Your task to perform on an android device: Search for "macbook pro 13 inch" on newegg.com, select the first entry, add it to the cart, then select checkout. Image 0: 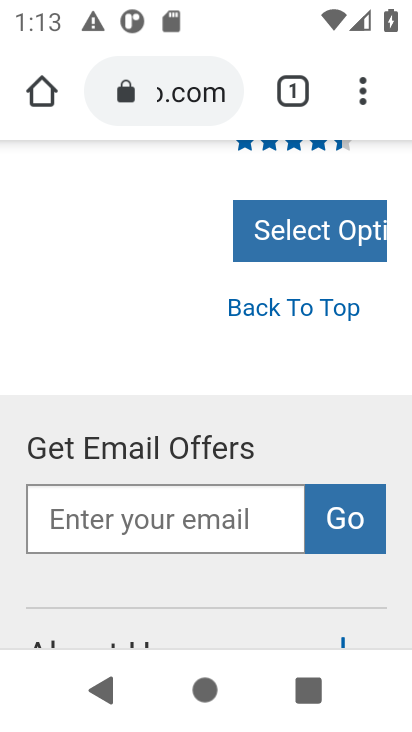
Step 0: click (164, 86)
Your task to perform on an android device: Search for "macbook pro 13 inch" on newegg.com, select the first entry, add it to the cart, then select checkout. Image 1: 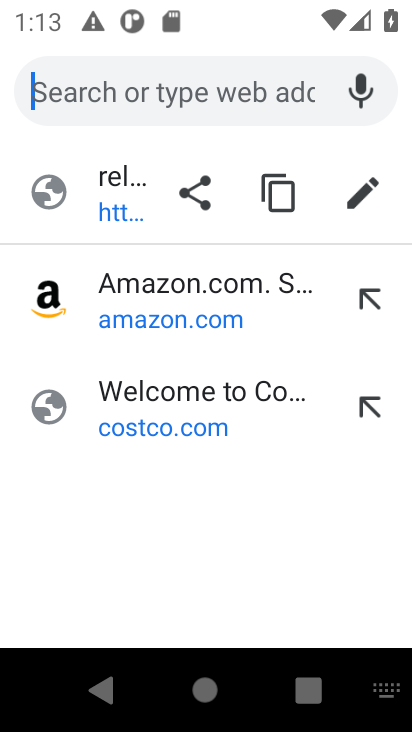
Step 1: type "newegg"
Your task to perform on an android device: Search for "macbook pro 13 inch" on newegg.com, select the first entry, add it to the cart, then select checkout. Image 2: 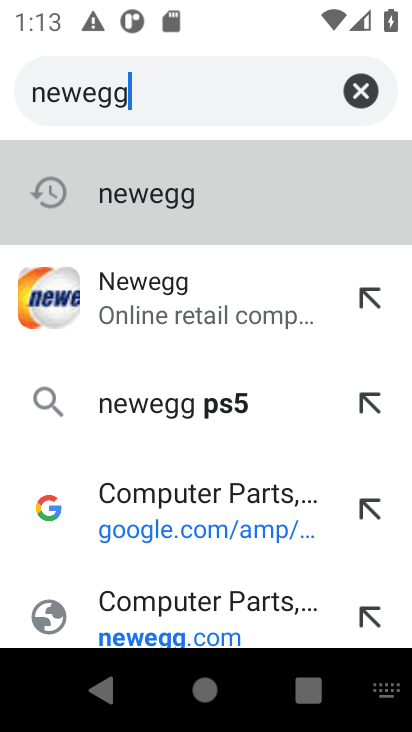
Step 2: drag from (247, 518) to (214, 267)
Your task to perform on an android device: Search for "macbook pro 13 inch" on newegg.com, select the first entry, add it to the cart, then select checkout. Image 3: 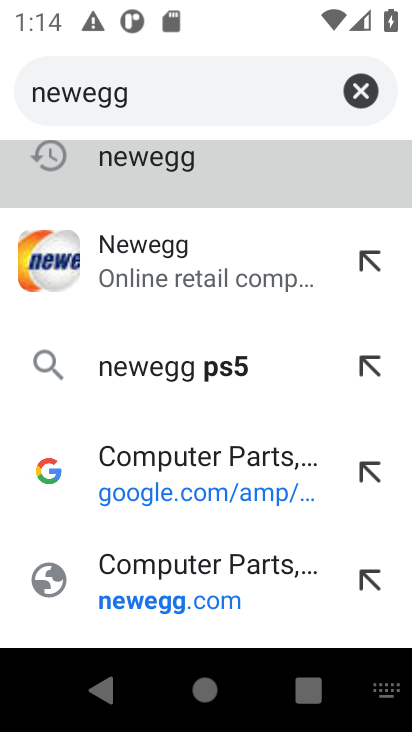
Step 3: click (201, 599)
Your task to perform on an android device: Search for "macbook pro 13 inch" on newegg.com, select the first entry, add it to the cart, then select checkout. Image 4: 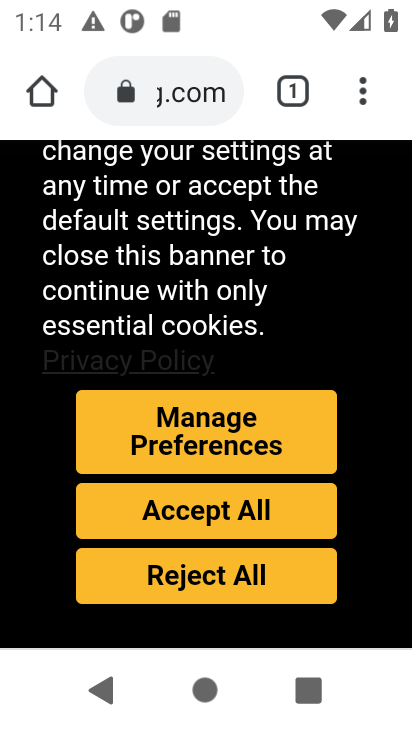
Step 4: click (226, 522)
Your task to perform on an android device: Search for "macbook pro 13 inch" on newegg.com, select the first entry, add it to the cart, then select checkout. Image 5: 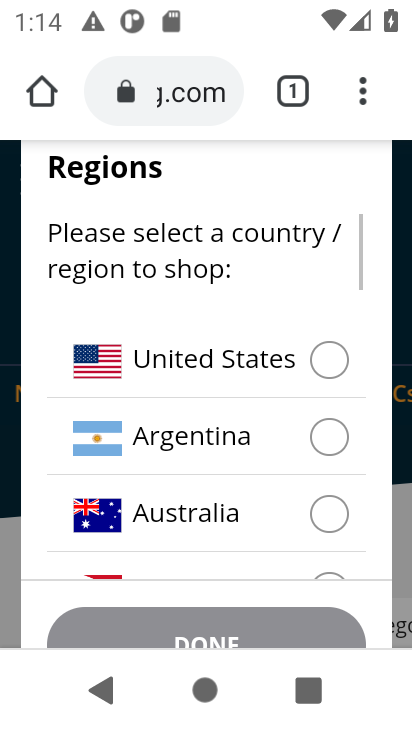
Step 5: click (326, 375)
Your task to perform on an android device: Search for "macbook pro 13 inch" on newegg.com, select the first entry, add it to the cart, then select checkout. Image 6: 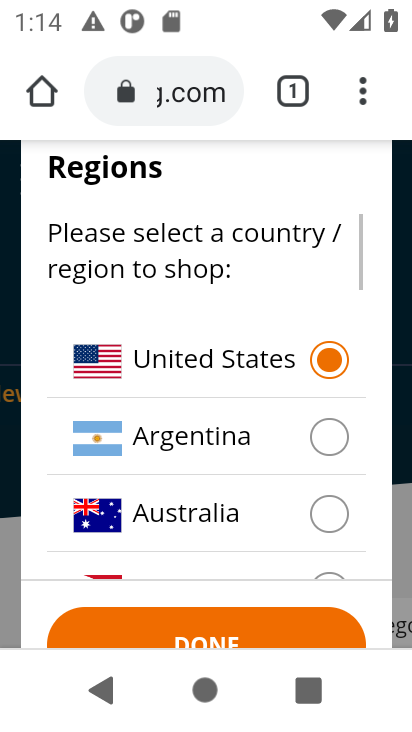
Step 6: click (273, 629)
Your task to perform on an android device: Search for "macbook pro 13 inch" on newegg.com, select the first entry, add it to the cart, then select checkout. Image 7: 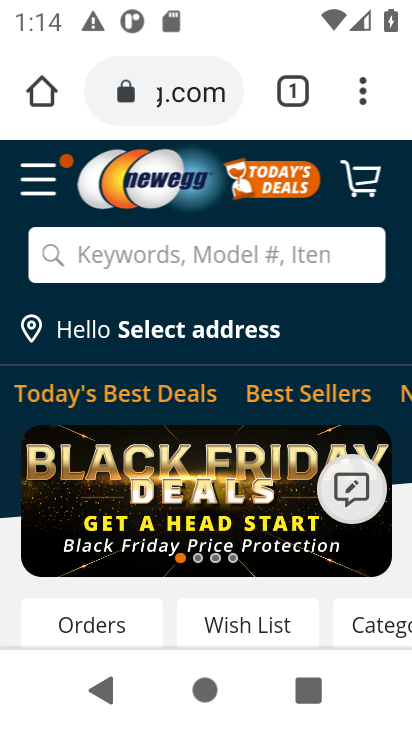
Step 7: click (240, 252)
Your task to perform on an android device: Search for "macbook pro 13 inch" on newegg.com, select the first entry, add it to the cart, then select checkout. Image 8: 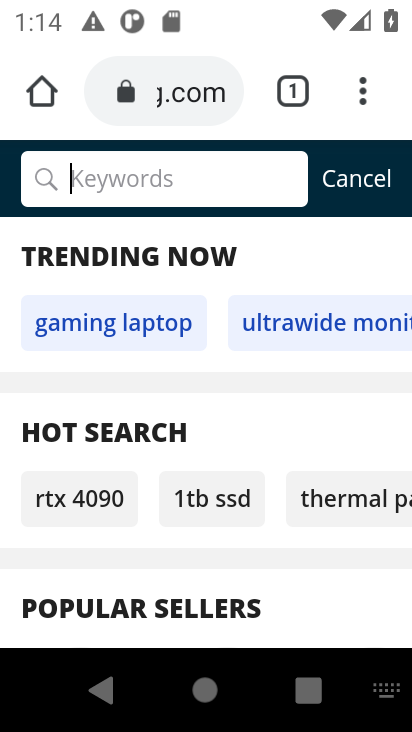
Step 8: type "macbook pro 13 inch"
Your task to perform on an android device: Search for "macbook pro 13 inch" on newegg.com, select the first entry, add it to the cart, then select checkout. Image 9: 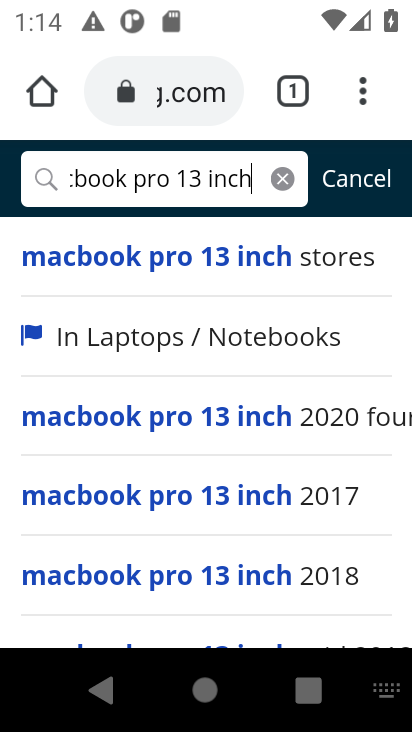
Step 9: drag from (279, 552) to (283, 407)
Your task to perform on an android device: Search for "macbook pro 13 inch" on newegg.com, select the first entry, add it to the cart, then select checkout. Image 10: 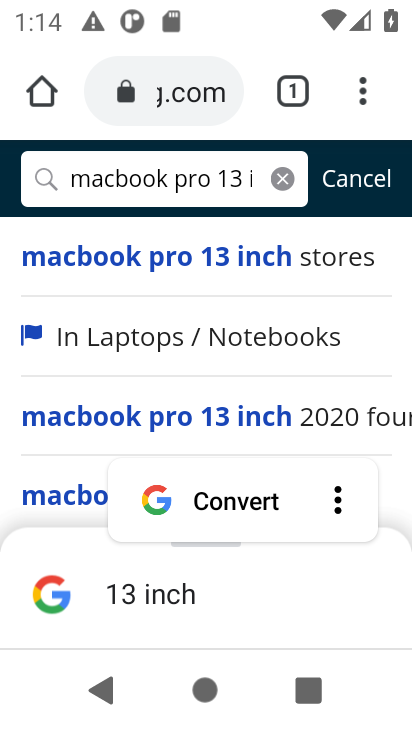
Step 10: click (265, 252)
Your task to perform on an android device: Search for "macbook pro 13 inch" on newegg.com, select the first entry, add it to the cart, then select checkout. Image 11: 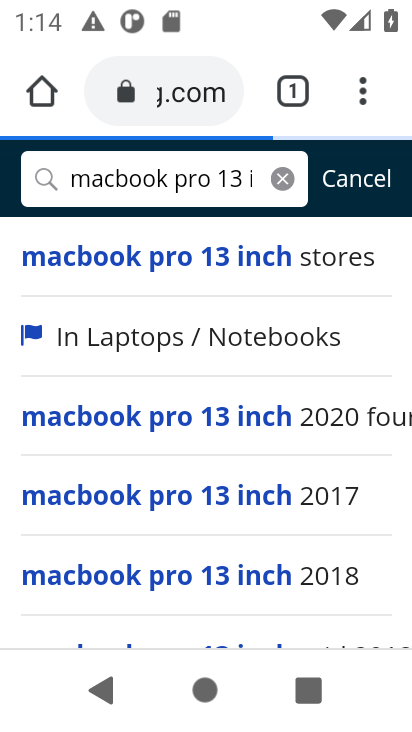
Step 11: click (265, 252)
Your task to perform on an android device: Search for "macbook pro 13 inch" on newegg.com, select the first entry, add it to the cart, then select checkout. Image 12: 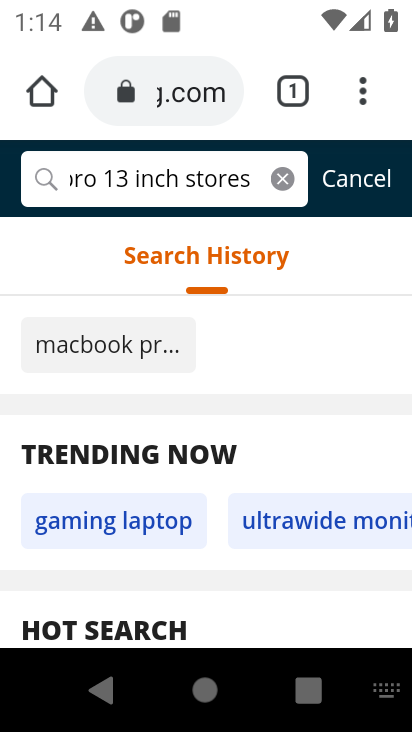
Step 12: task complete